Your task to perform on an android device: delete browsing data in the chrome app Image 0: 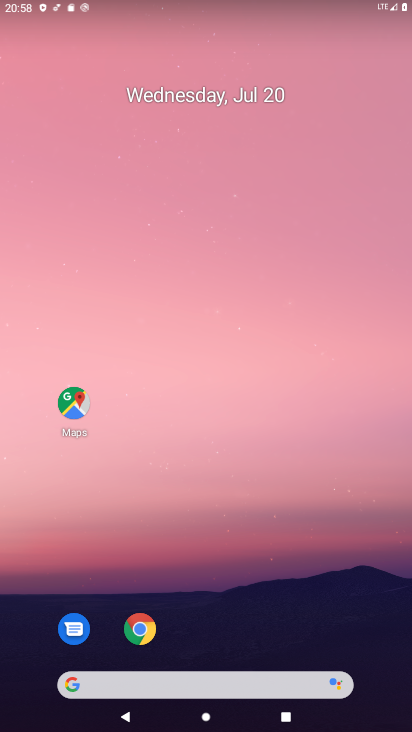
Step 0: click (150, 641)
Your task to perform on an android device: delete browsing data in the chrome app Image 1: 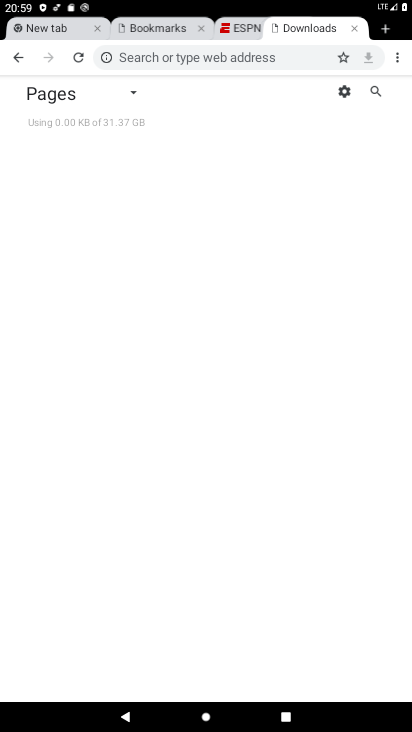
Step 1: click (402, 53)
Your task to perform on an android device: delete browsing data in the chrome app Image 2: 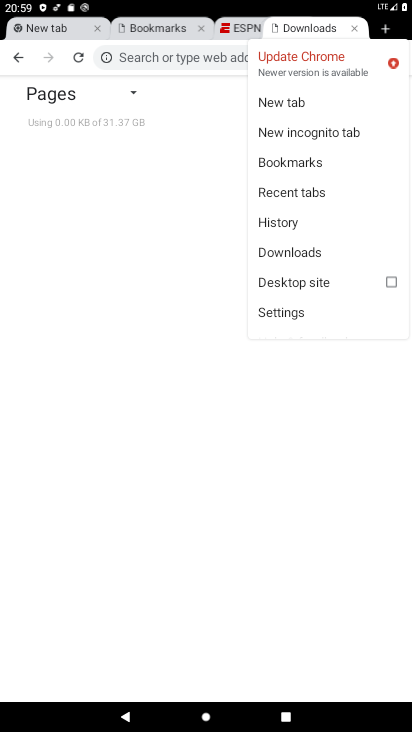
Step 2: click (287, 221)
Your task to perform on an android device: delete browsing data in the chrome app Image 3: 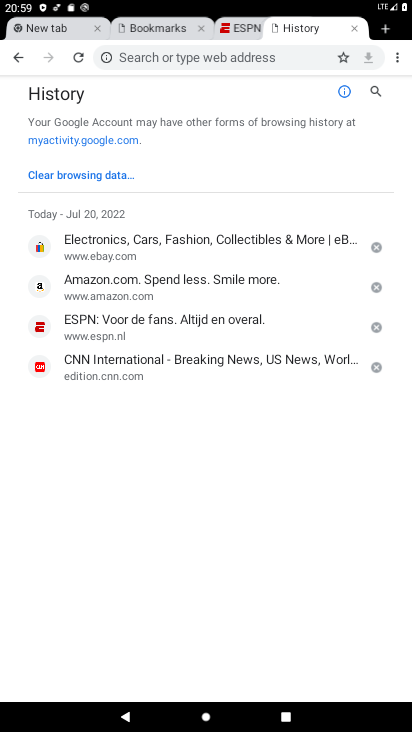
Step 3: click (95, 179)
Your task to perform on an android device: delete browsing data in the chrome app Image 4: 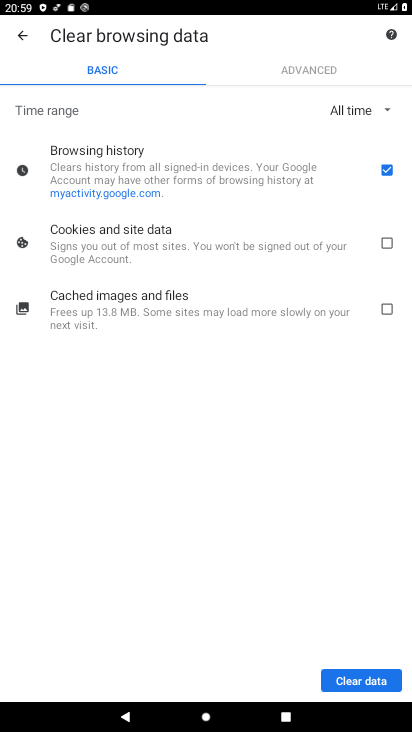
Step 4: click (380, 244)
Your task to perform on an android device: delete browsing data in the chrome app Image 5: 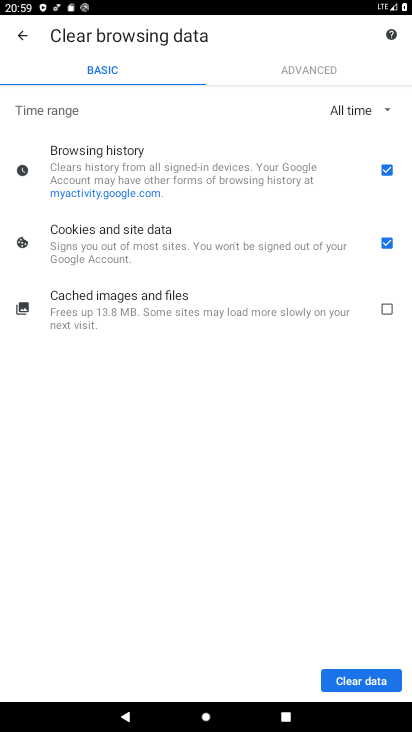
Step 5: click (384, 309)
Your task to perform on an android device: delete browsing data in the chrome app Image 6: 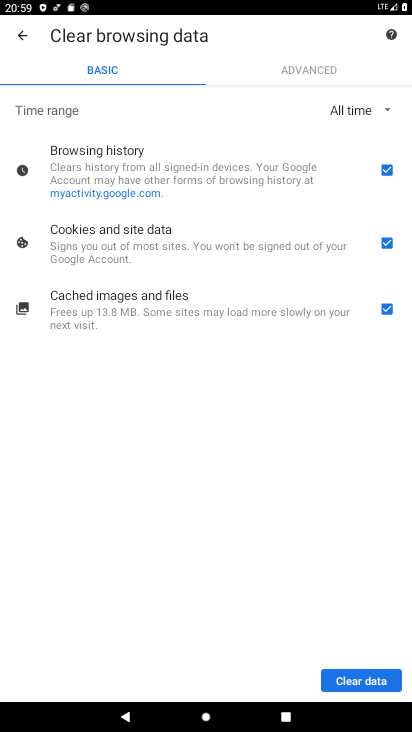
Step 6: click (372, 676)
Your task to perform on an android device: delete browsing data in the chrome app Image 7: 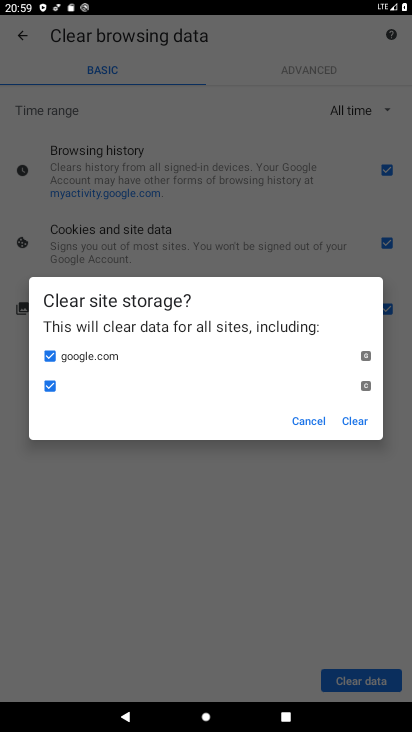
Step 7: click (350, 421)
Your task to perform on an android device: delete browsing data in the chrome app Image 8: 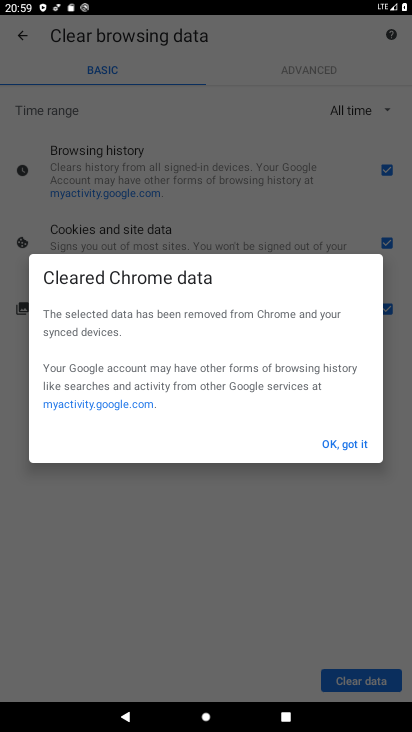
Step 8: click (344, 443)
Your task to perform on an android device: delete browsing data in the chrome app Image 9: 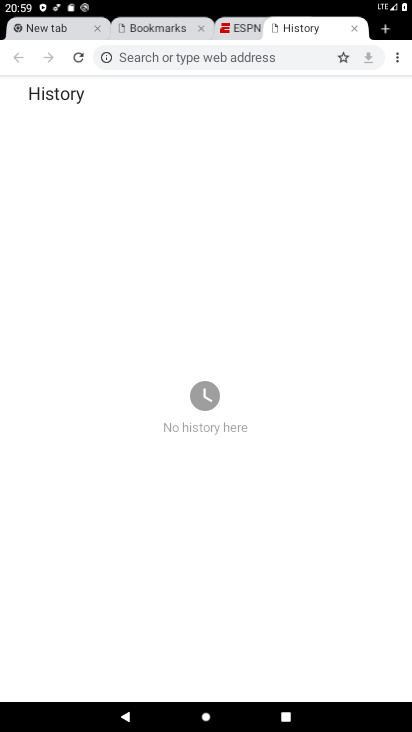
Step 9: task complete